Your task to perform on an android device: What's the news in China? Image 0: 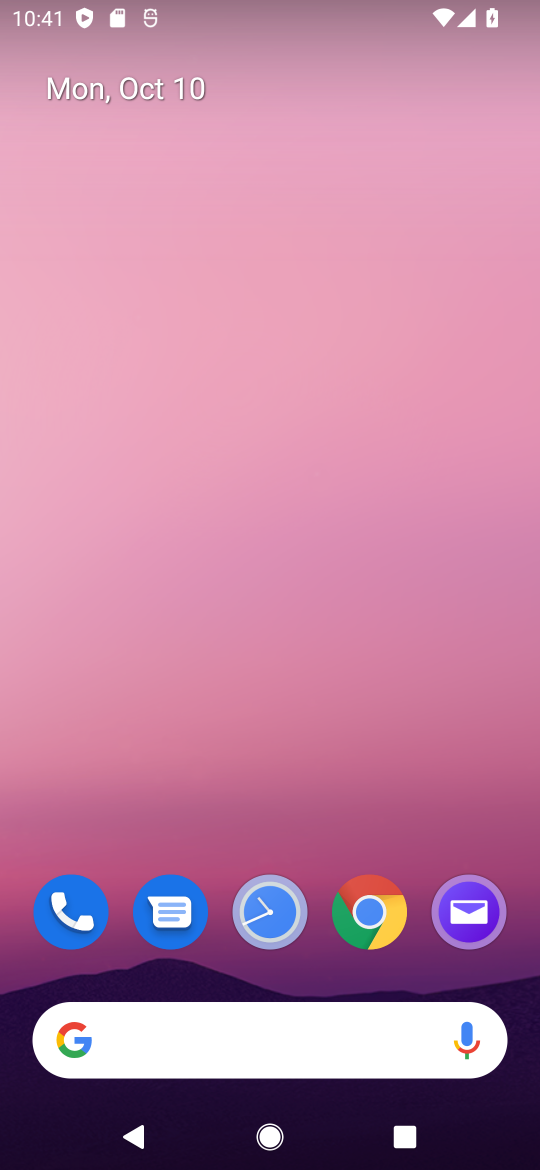
Step 0: click (68, 1038)
Your task to perform on an android device: What's the news in China? Image 1: 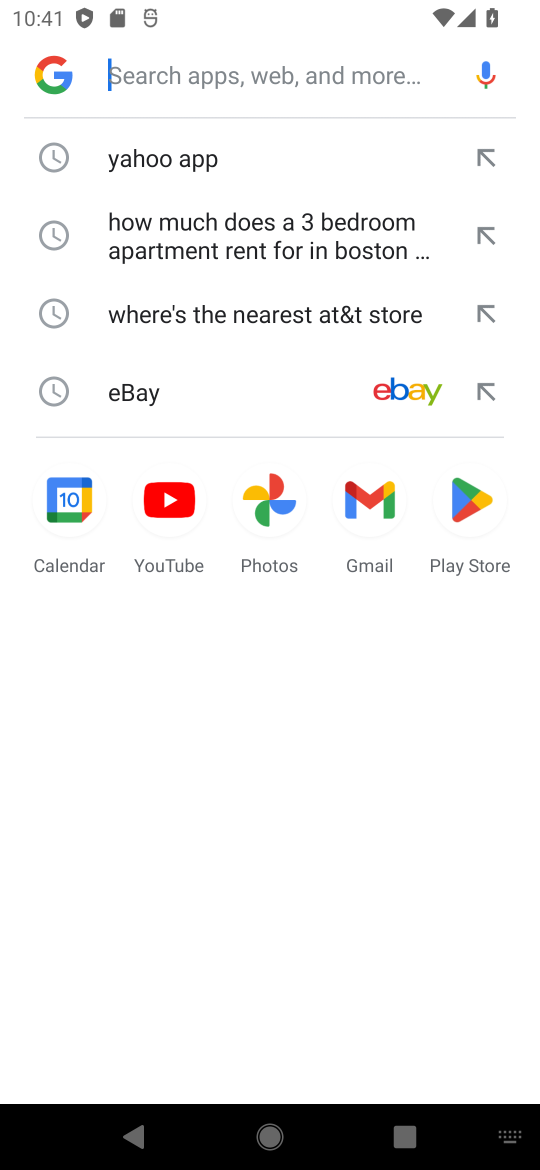
Step 1: type "whats the news in china ?"
Your task to perform on an android device: What's the news in China? Image 2: 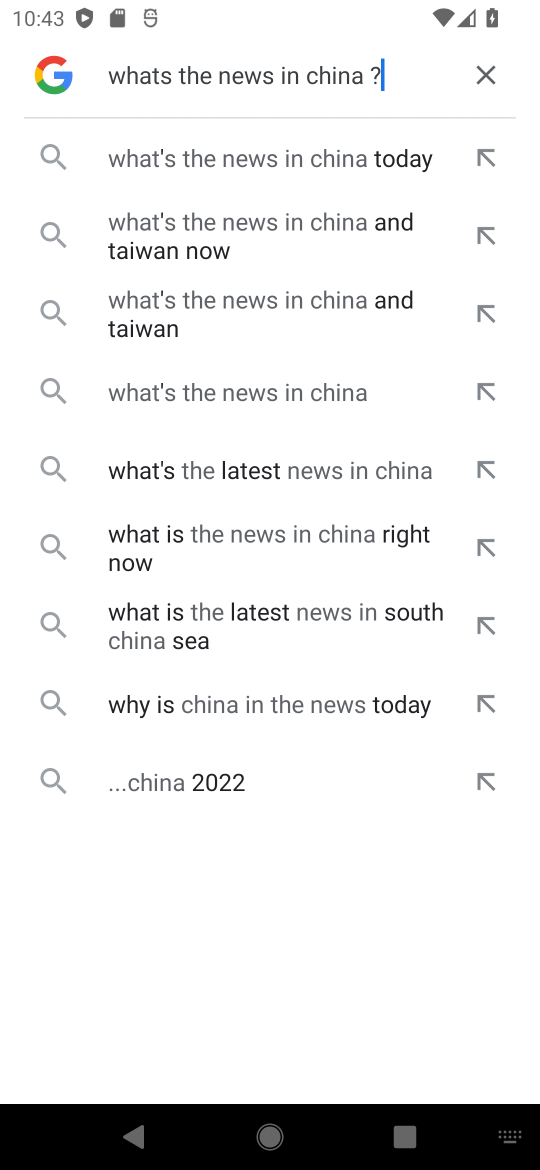
Step 2: click (274, 180)
Your task to perform on an android device: What's the news in China? Image 3: 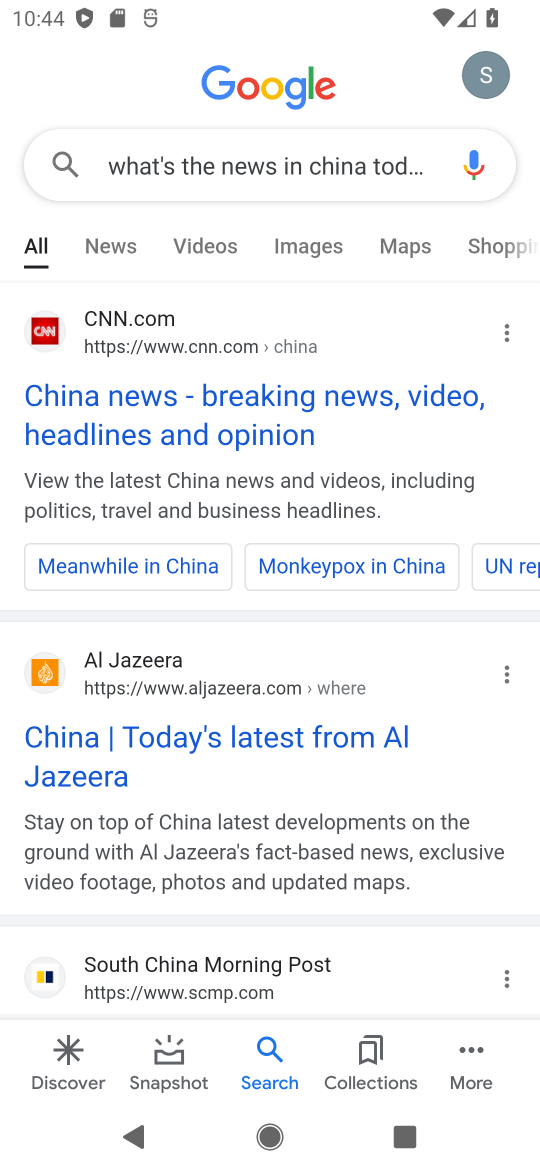
Step 3: click (221, 406)
Your task to perform on an android device: What's the news in China? Image 4: 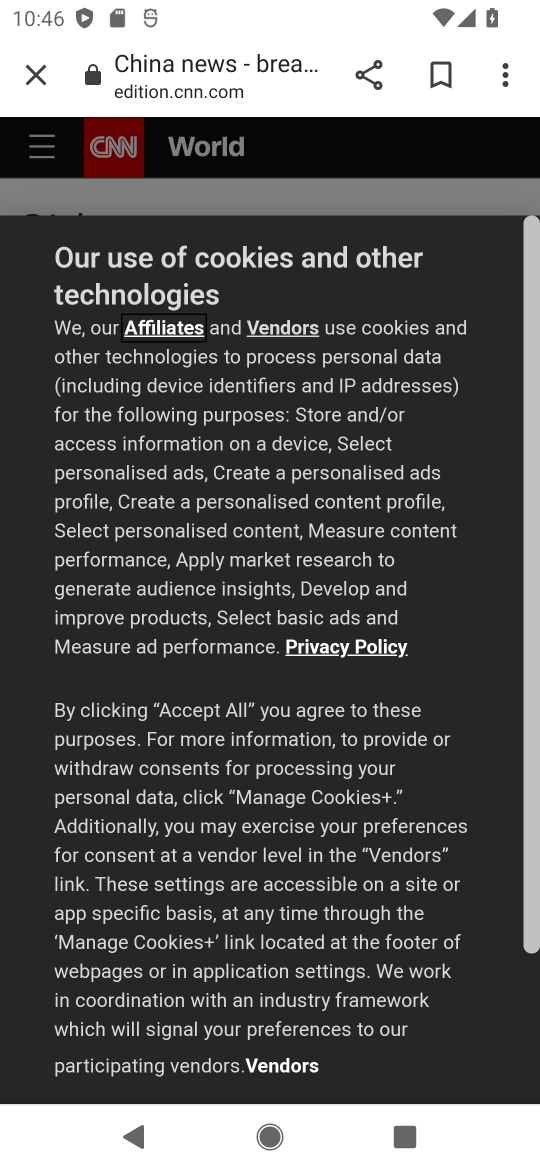
Step 4: task complete